Your task to perform on an android device: turn off picture-in-picture Image 0: 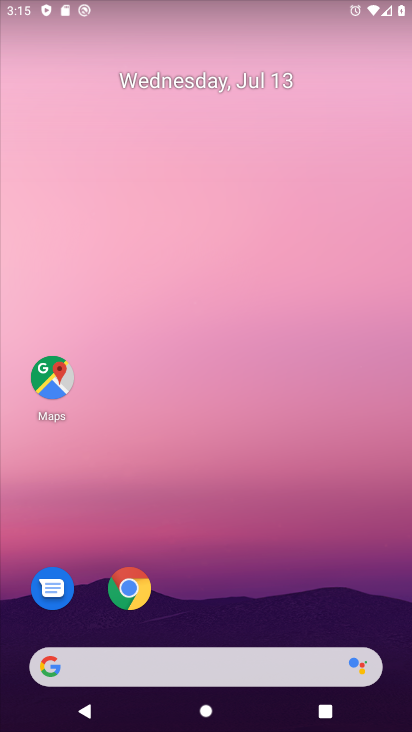
Step 0: click (132, 589)
Your task to perform on an android device: turn off picture-in-picture Image 1: 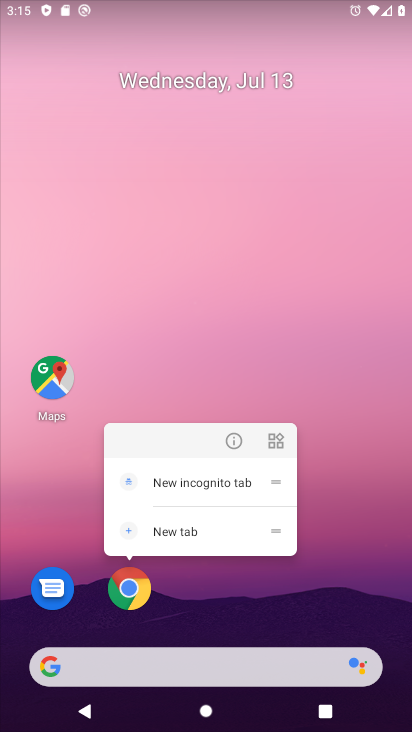
Step 1: click (224, 446)
Your task to perform on an android device: turn off picture-in-picture Image 2: 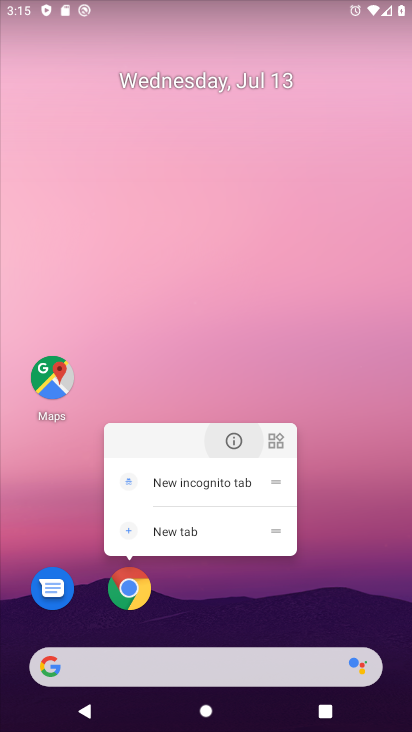
Step 2: click (225, 445)
Your task to perform on an android device: turn off picture-in-picture Image 3: 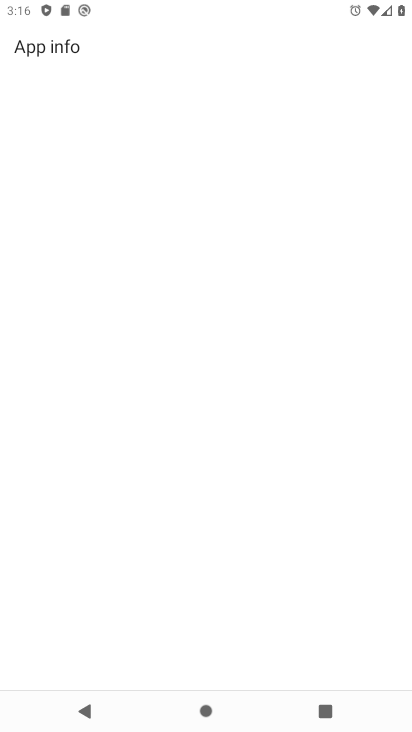
Step 3: click (228, 442)
Your task to perform on an android device: turn off picture-in-picture Image 4: 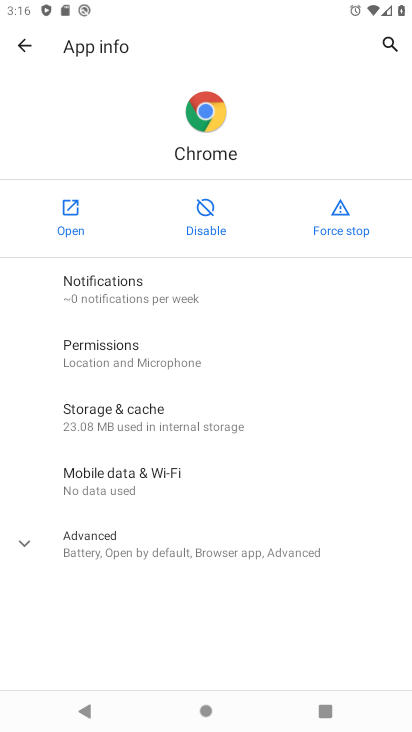
Step 4: click (112, 546)
Your task to perform on an android device: turn off picture-in-picture Image 5: 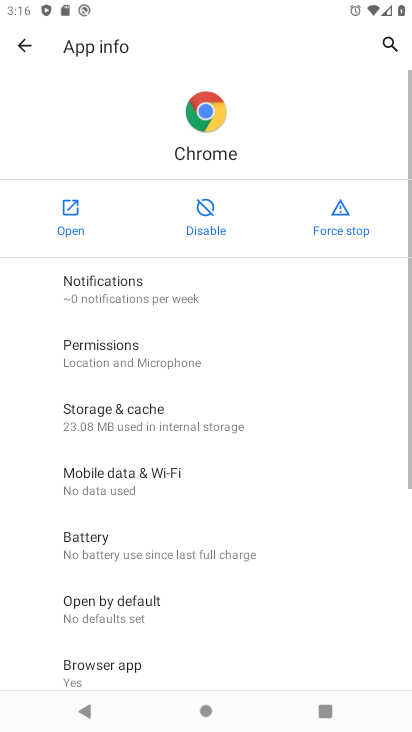
Step 5: drag from (156, 626) to (158, 202)
Your task to perform on an android device: turn off picture-in-picture Image 6: 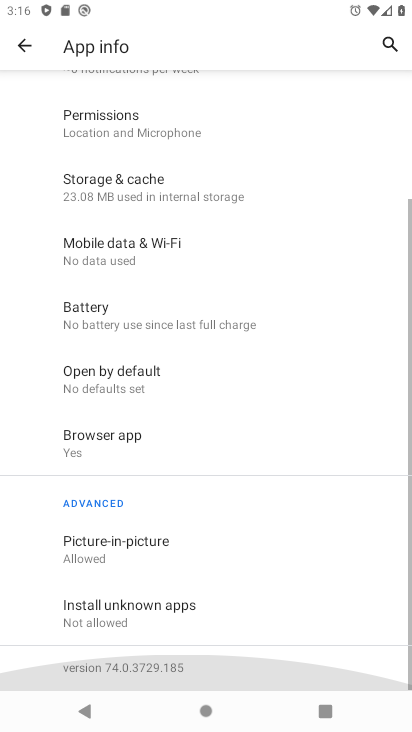
Step 6: drag from (195, 554) to (195, 228)
Your task to perform on an android device: turn off picture-in-picture Image 7: 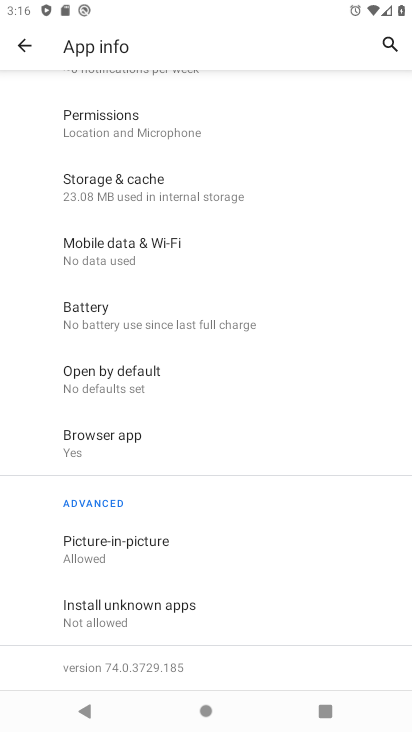
Step 7: click (87, 534)
Your task to perform on an android device: turn off picture-in-picture Image 8: 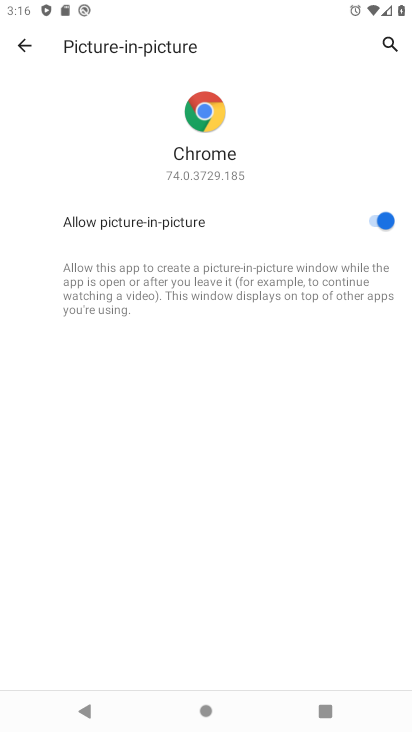
Step 8: click (386, 220)
Your task to perform on an android device: turn off picture-in-picture Image 9: 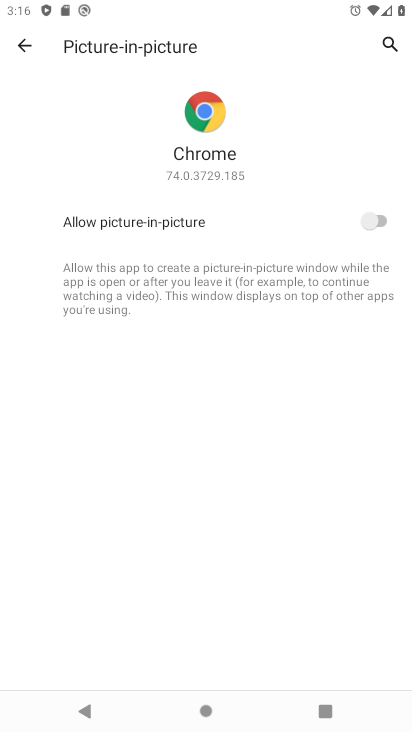
Step 9: task complete